Your task to perform on an android device: Open Wikipedia Image 0: 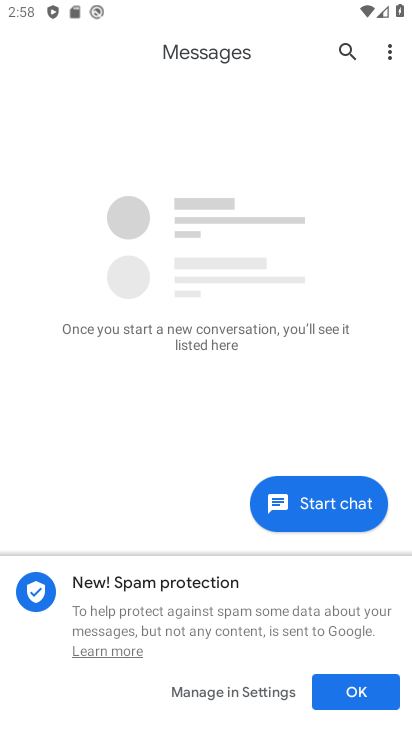
Step 0: press home button
Your task to perform on an android device: Open Wikipedia Image 1: 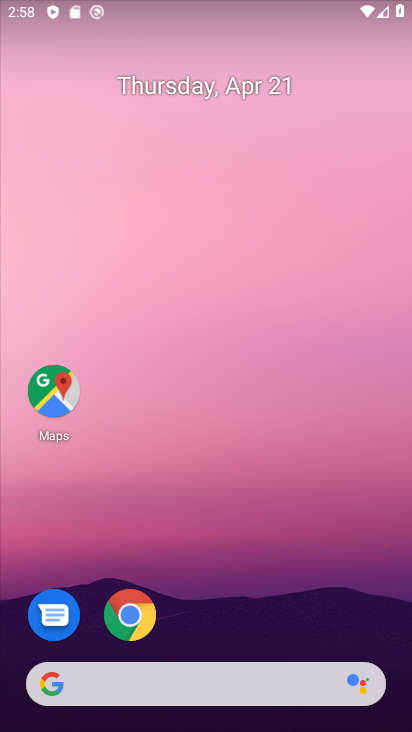
Step 1: drag from (377, 550) to (384, 97)
Your task to perform on an android device: Open Wikipedia Image 2: 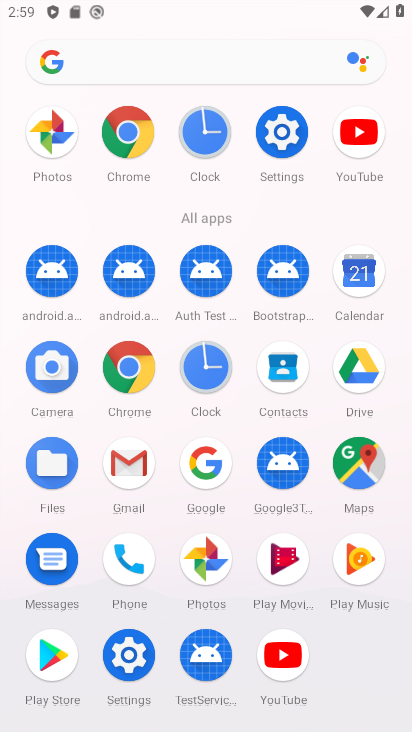
Step 2: click (134, 365)
Your task to perform on an android device: Open Wikipedia Image 3: 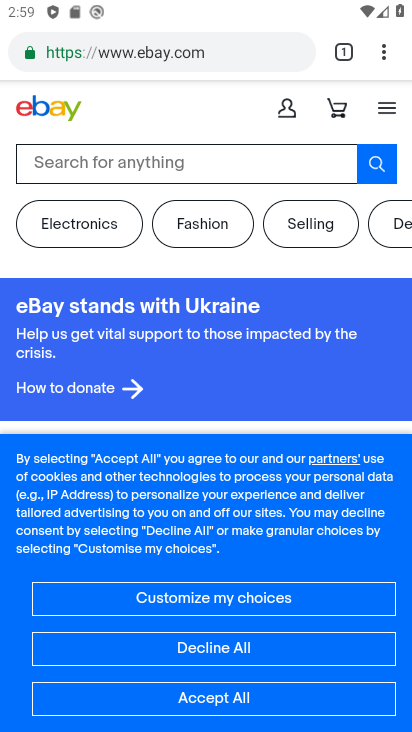
Step 3: click (338, 52)
Your task to perform on an android device: Open Wikipedia Image 4: 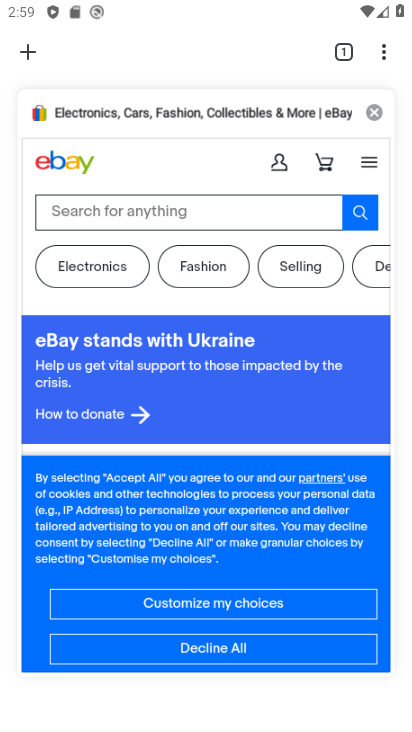
Step 4: click (16, 46)
Your task to perform on an android device: Open Wikipedia Image 5: 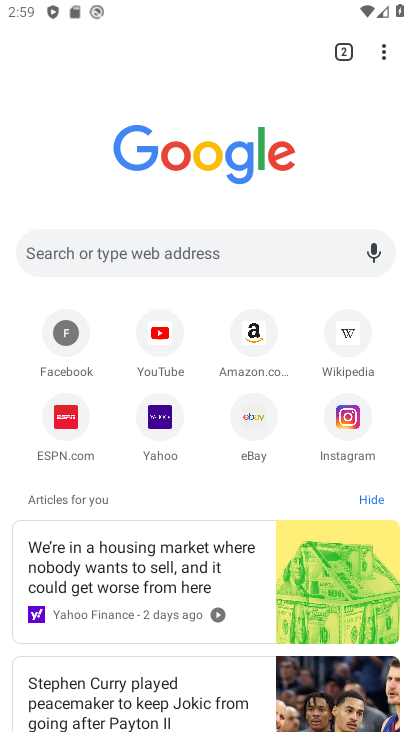
Step 5: click (155, 254)
Your task to perform on an android device: Open Wikipedia Image 6: 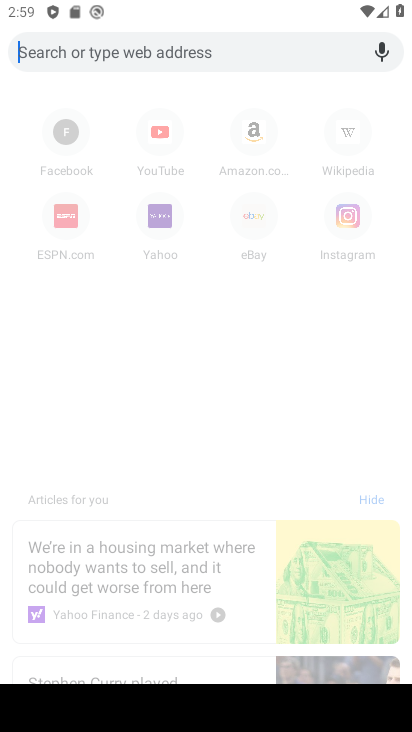
Step 6: type "wikipedia"
Your task to perform on an android device: Open Wikipedia Image 7: 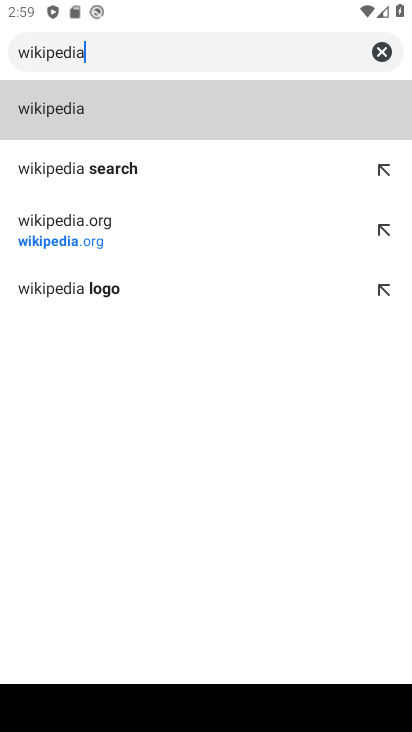
Step 7: click (105, 120)
Your task to perform on an android device: Open Wikipedia Image 8: 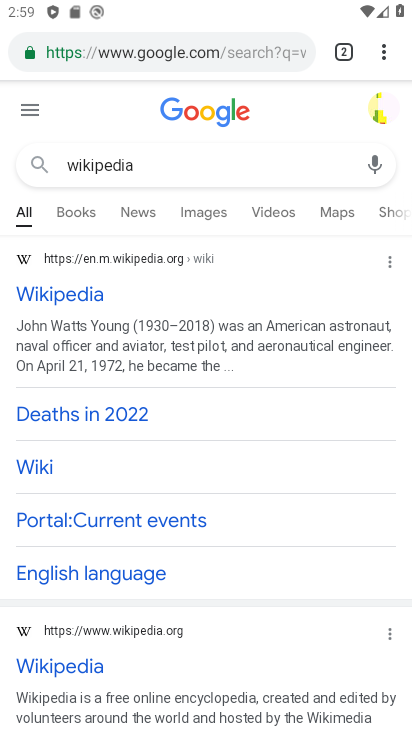
Step 8: click (79, 296)
Your task to perform on an android device: Open Wikipedia Image 9: 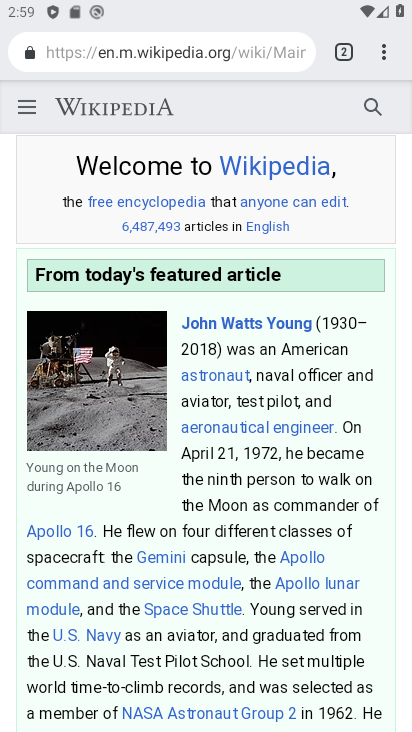
Step 9: task complete